Your task to perform on an android device: Go to Maps Image 0: 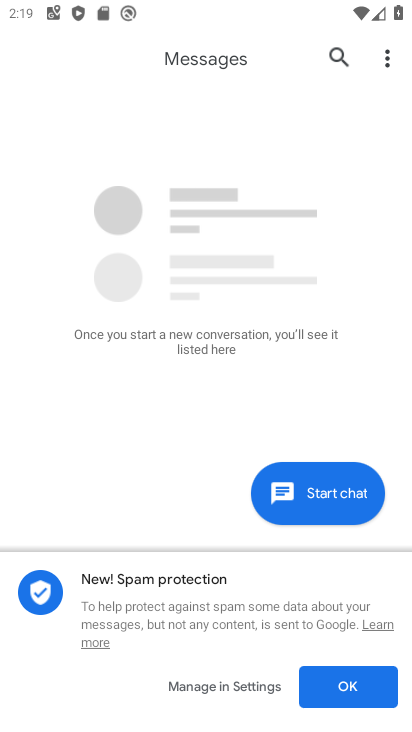
Step 0: press home button
Your task to perform on an android device: Go to Maps Image 1: 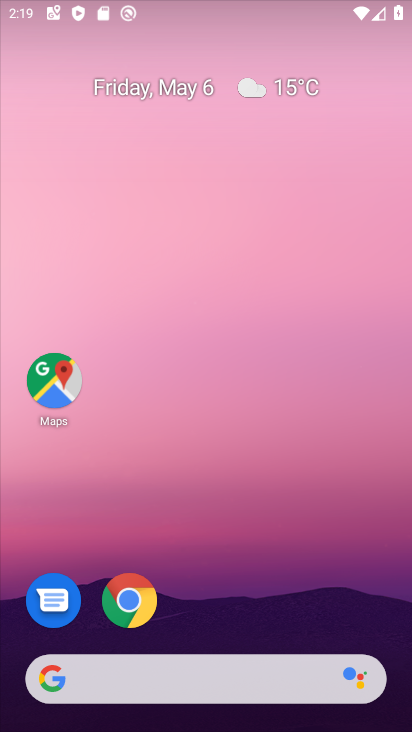
Step 1: drag from (288, 610) to (238, 100)
Your task to perform on an android device: Go to Maps Image 2: 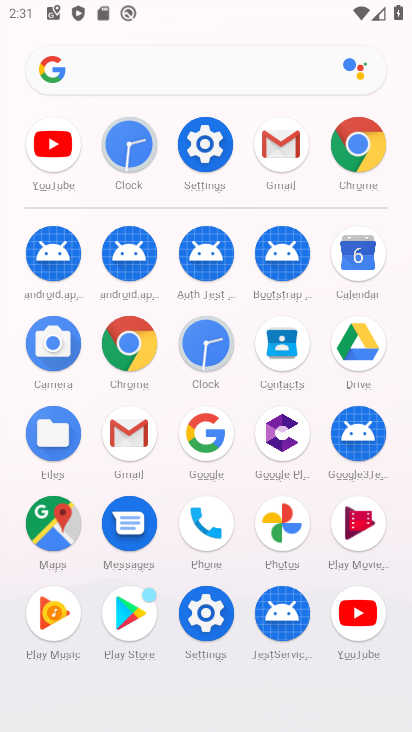
Step 2: click (56, 514)
Your task to perform on an android device: Go to Maps Image 3: 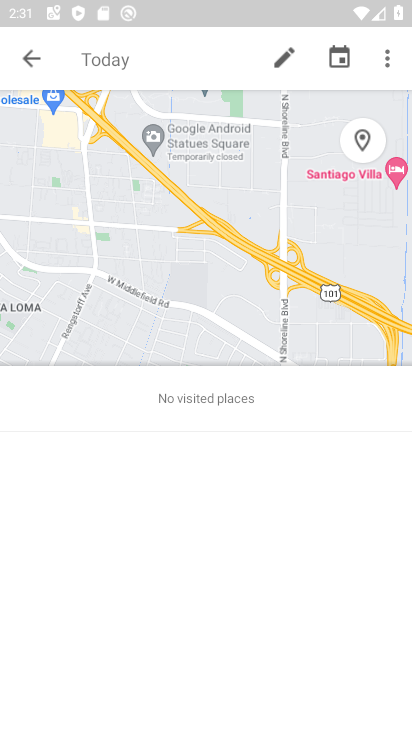
Step 3: click (42, 55)
Your task to perform on an android device: Go to Maps Image 4: 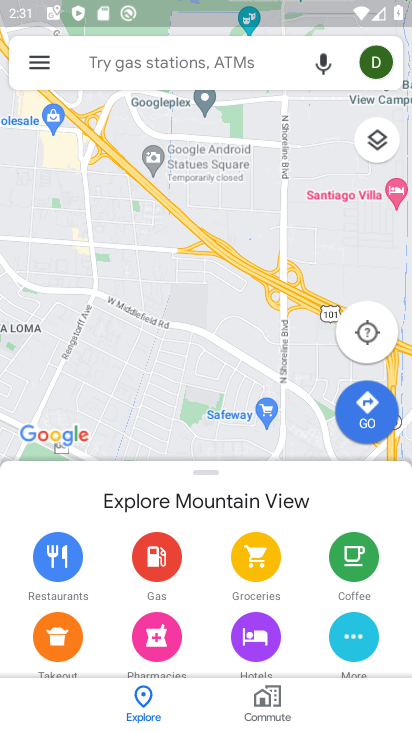
Step 4: task complete